Your task to perform on an android device: When is my next appointment? Image 0: 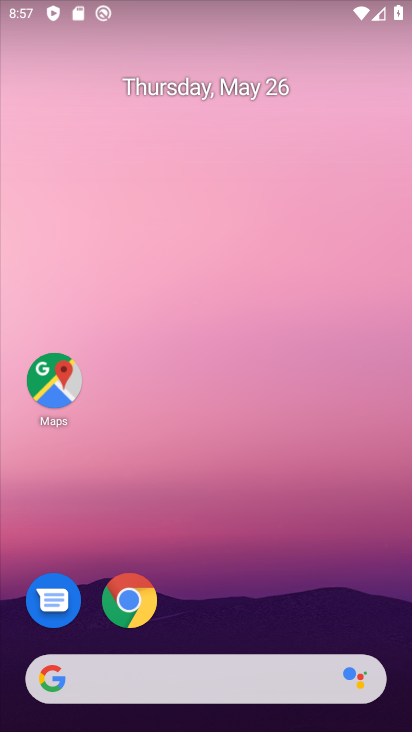
Step 0: click (224, 84)
Your task to perform on an android device: When is my next appointment? Image 1: 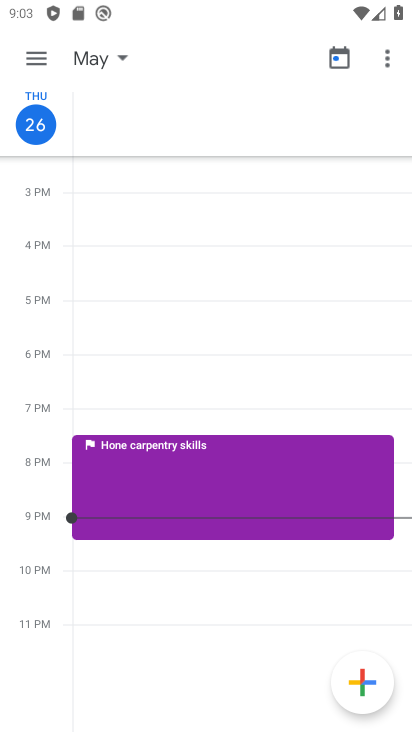
Step 1: click (114, 74)
Your task to perform on an android device: When is my next appointment? Image 2: 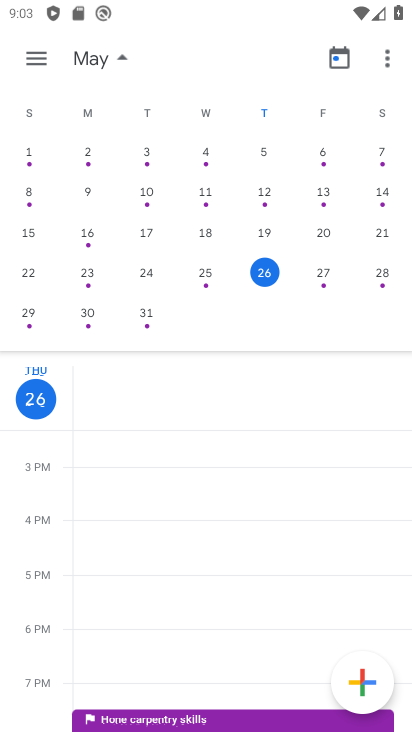
Step 2: task complete